Your task to perform on an android device: turn on translation in the chrome app Image 0: 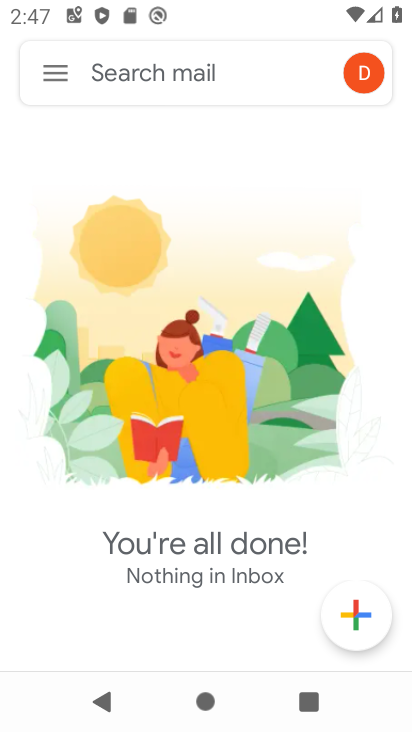
Step 0: press home button
Your task to perform on an android device: turn on translation in the chrome app Image 1: 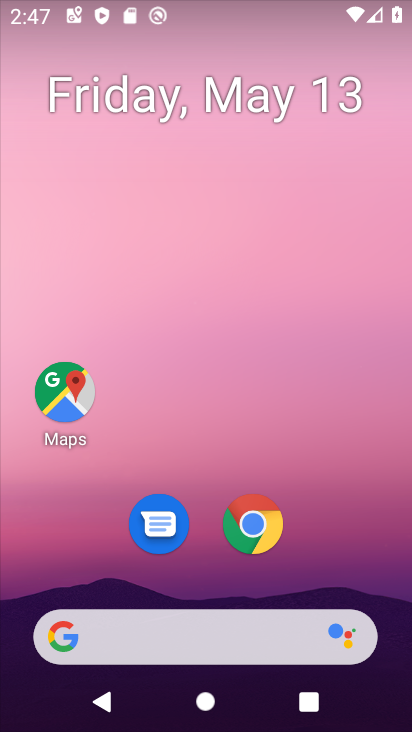
Step 1: click (258, 529)
Your task to perform on an android device: turn on translation in the chrome app Image 2: 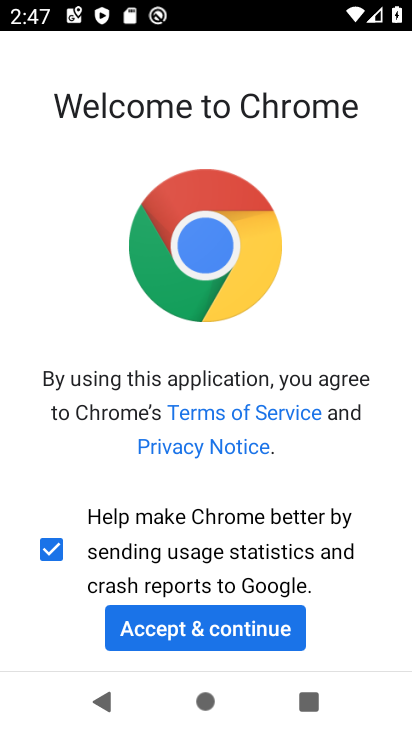
Step 2: click (266, 619)
Your task to perform on an android device: turn on translation in the chrome app Image 3: 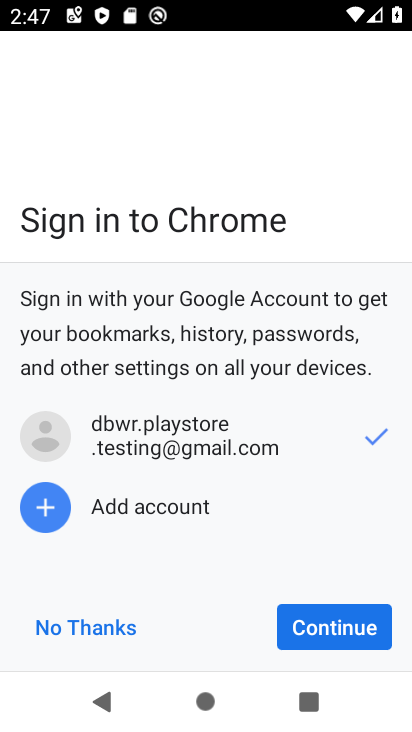
Step 3: click (304, 619)
Your task to perform on an android device: turn on translation in the chrome app Image 4: 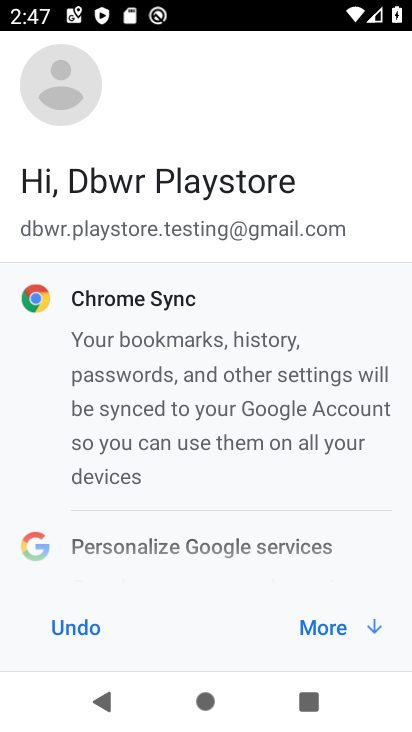
Step 4: click (304, 619)
Your task to perform on an android device: turn on translation in the chrome app Image 5: 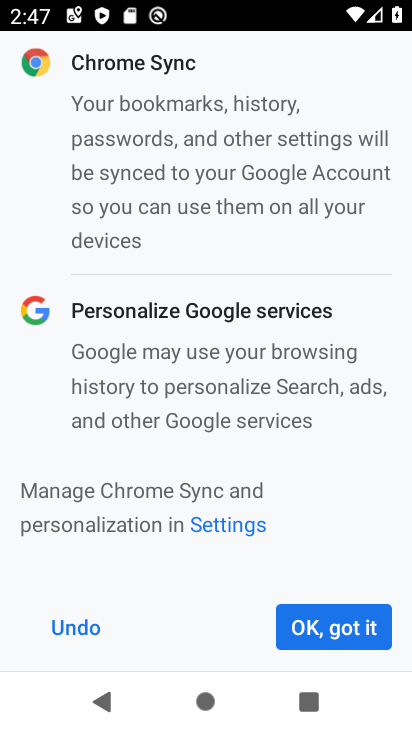
Step 5: click (314, 627)
Your task to perform on an android device: turn on translation in the chrome app Image 6: 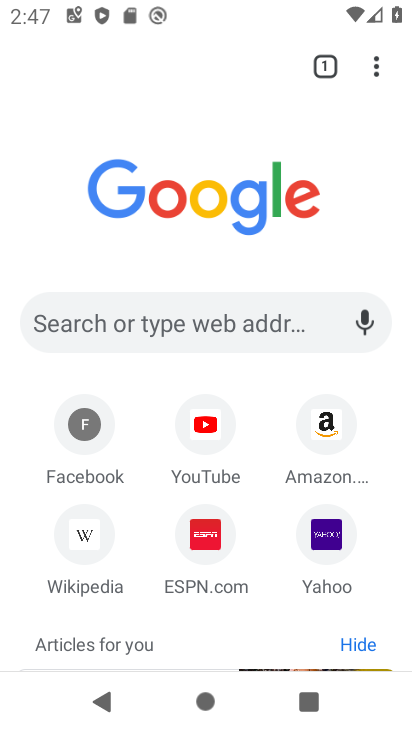
Step 6: click (380, 70)
Your task to perform on an android device: turn on translation in the chrome app Image 7: 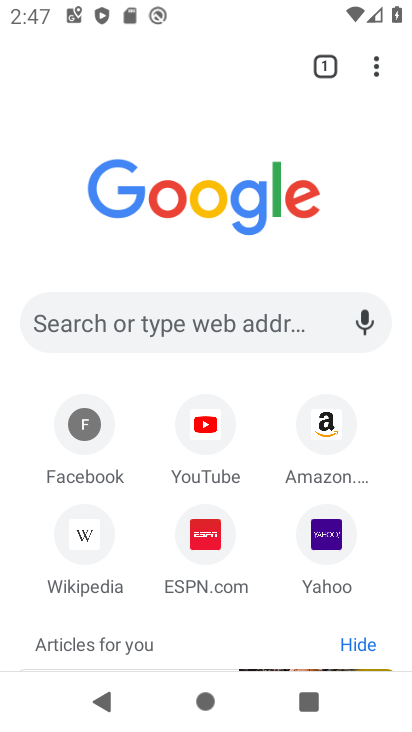
Step 7: click (379, 67)
Your task to perform on an android device: turn on translation in the chrome app Image 8: 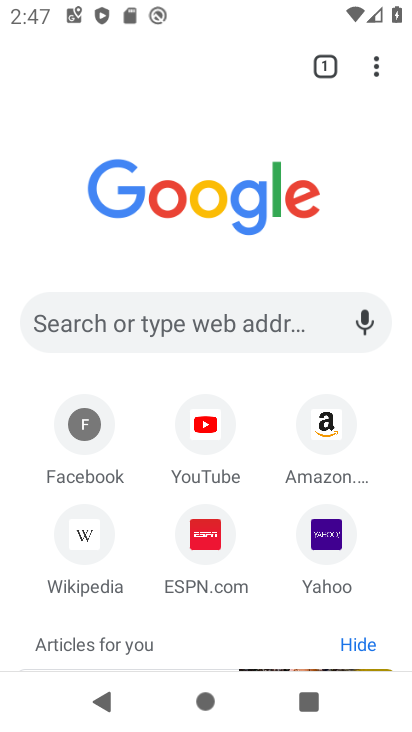
Step 8: click (379, 68)
Your task to perform on an android device: turn on translation in the chrome app Image 9: 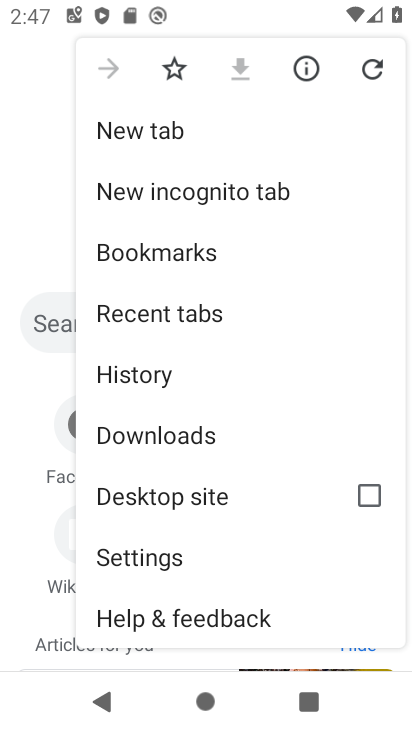
Step 9: click (201, 552)
Your task to perform on an android device: turn on translation in the chrome app Image 10: 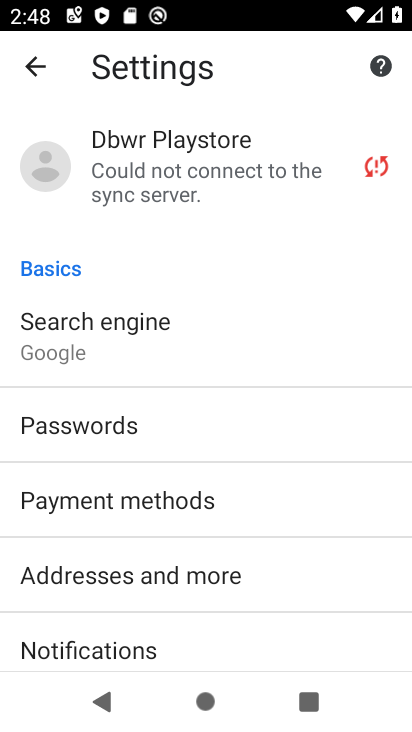
Step 10: drag from (247, 576) to (296, 110)
Your task to perform on an android device: turn on translation in the chrome app Image 11: 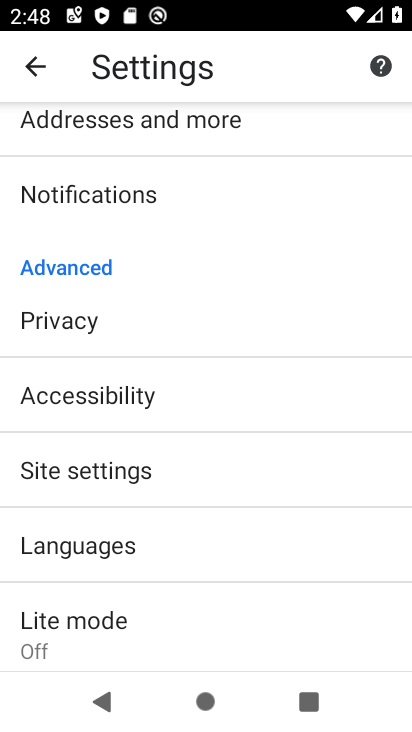
Step 11: click (177, 545)
Your task to perform on an android device: turn on translation in the chrome app Image 12: 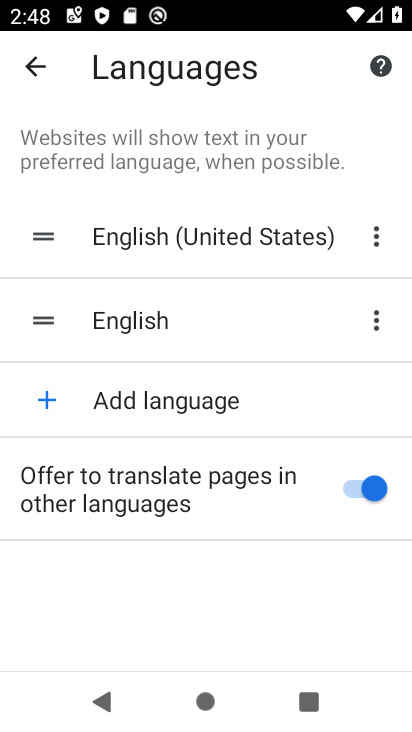
Step 12: task complete